Your task to perform on an android device: turn off location Image 0: 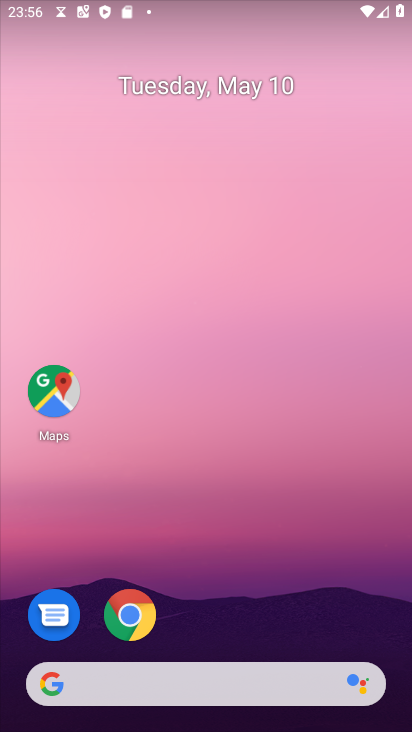
Step 0: drag from (200, 595) to (299, 253)
Your task to perform on an android device: turn off location Image 1: 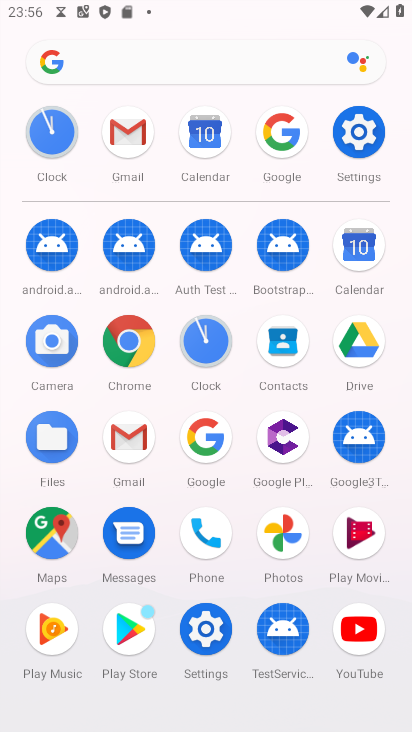
Step 1: click (358, 126)
Your task to perform on an android device: turn off location Image 2: 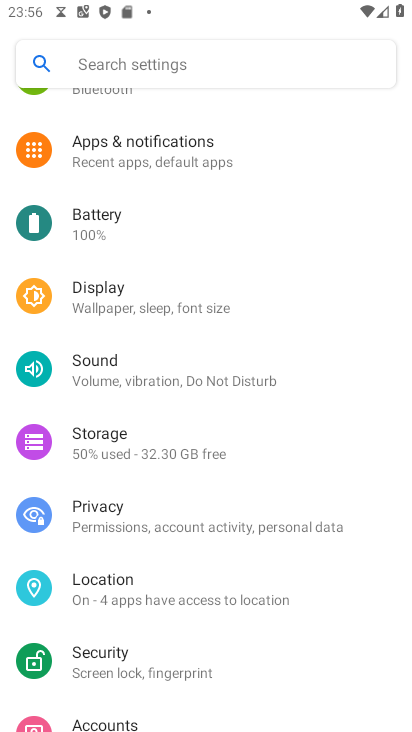
Step 2: click (125, 592)
Your task to perform on an android device: turn off location Image 3: 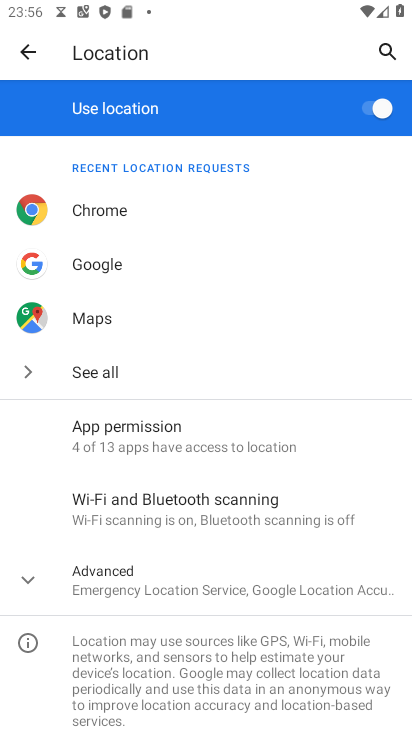
Step 3: click (385, 109)
Your task to perform on an android device: turn off location Image 4: 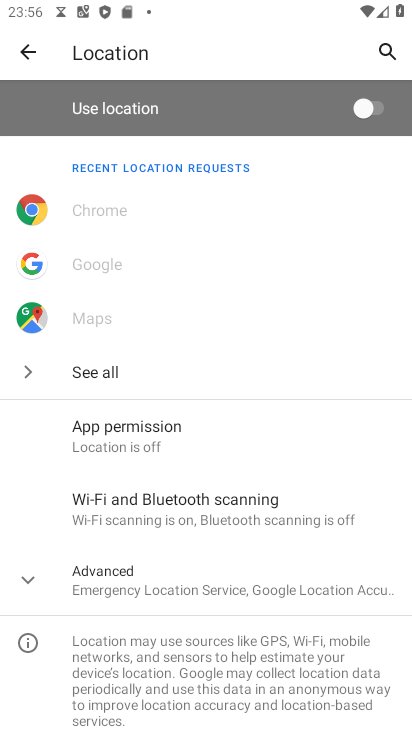
Step 4: task complete